Your task to perform on an android device: turn off data saver in the chrome app Image 0: 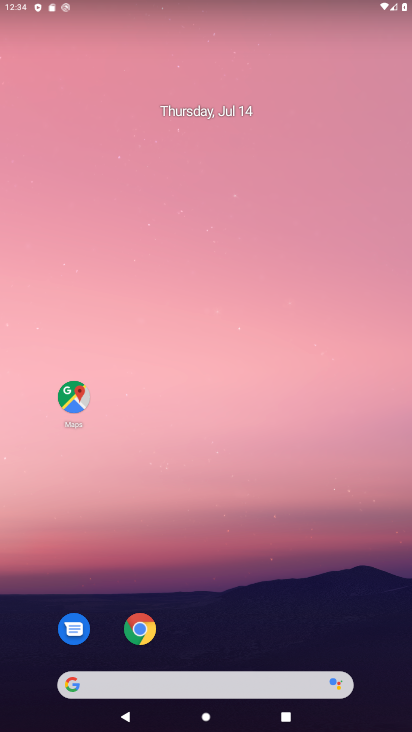
Step 0: click (140, 632)
Your task to perform on an android device: turn off data saver in the chrome app Image 1: 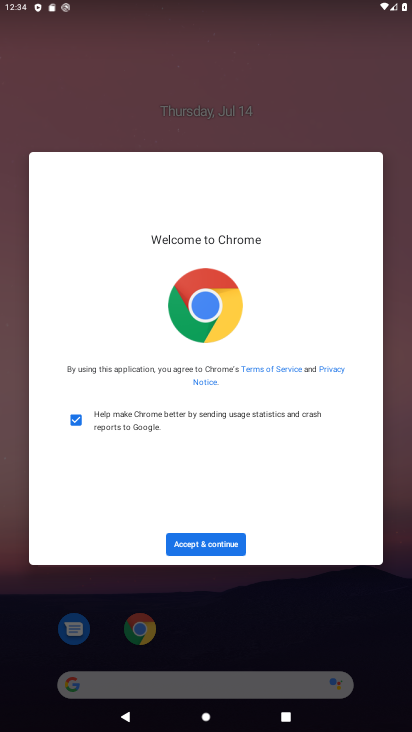
Step 1: click (212, 535)
Your task to perform on an android device: turn off data saver in the chrome app Image 2: 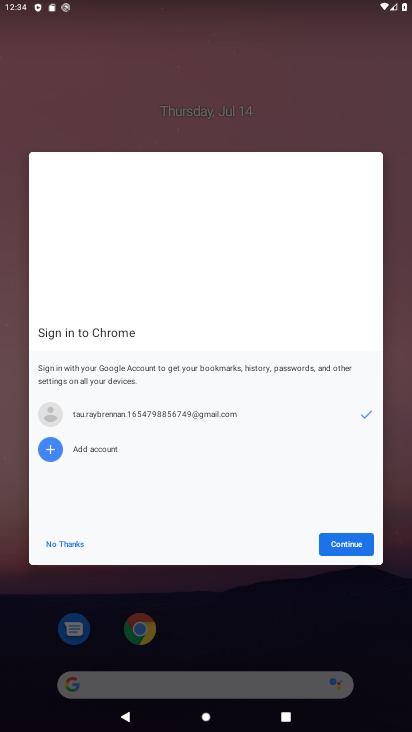
Step 2: click (341, 542)
Your task to perform on an android device: turn off data saver in the chrome app Image 3: 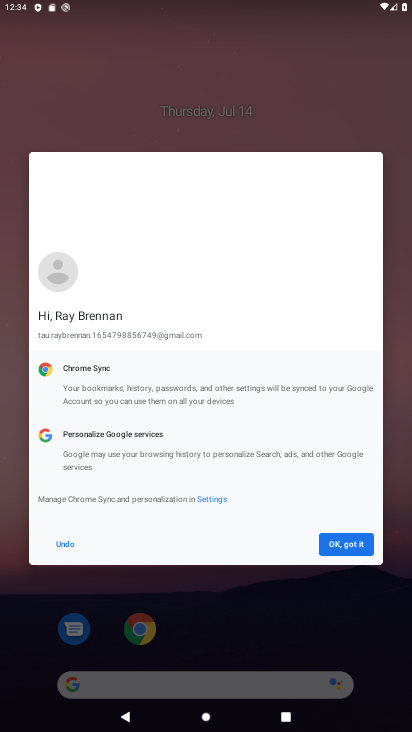
Step 3: click (342, 535)
Your task to perform on an android device: turn off data saver in the chrome app Image 4: 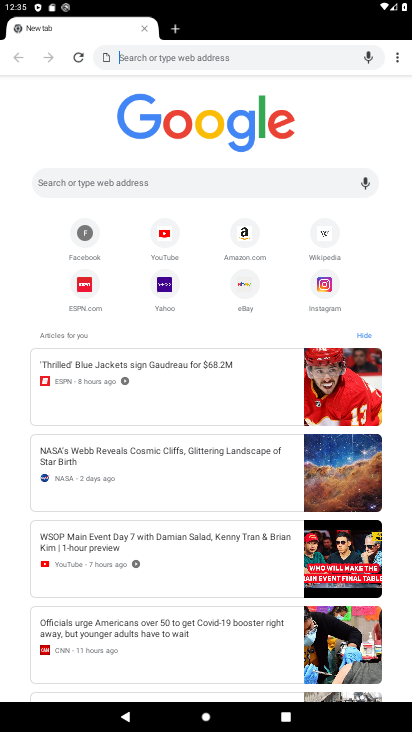
Step 4: click (395, 60)
Your task to perform on an android device: turn off data saver in the chrome app Image 5: 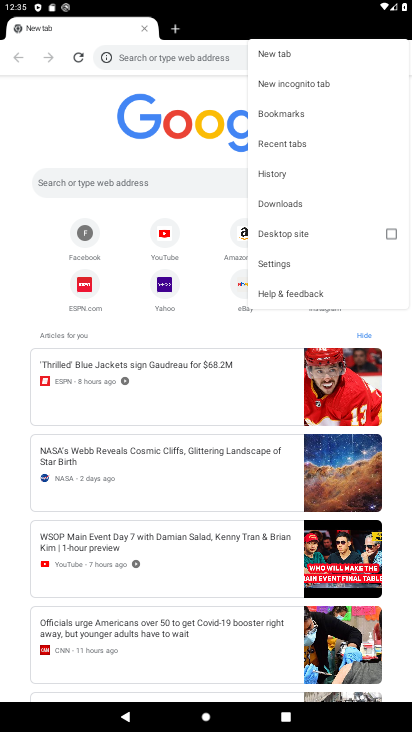
Step 5: click (296, 260)
Your task to perform on an android device: turn off data saver in the chrome app Image 6: 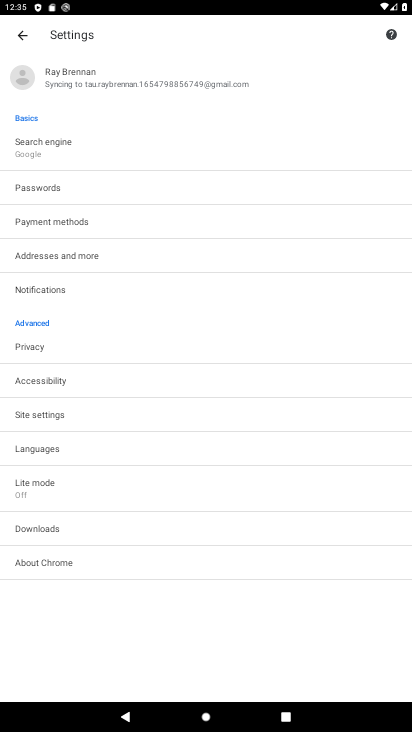
Step 6: click (37, 487)
Your task to perform on an android device: turn off data saver in the chrome app Image 7: 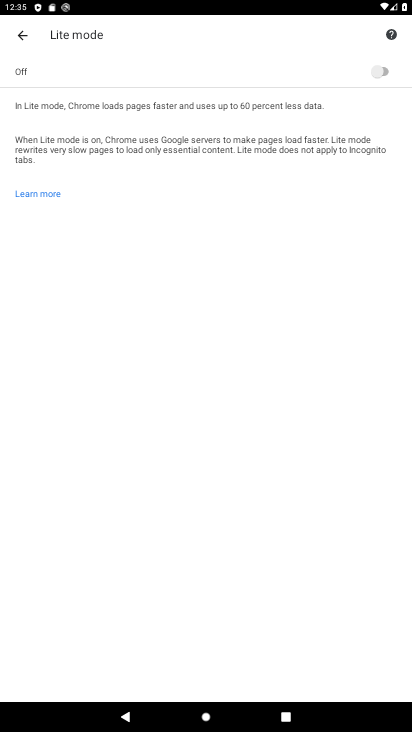
Step 7: task complete